Your task to perform on an android device: Search for vegetarian restaurants on Maps Image 0: 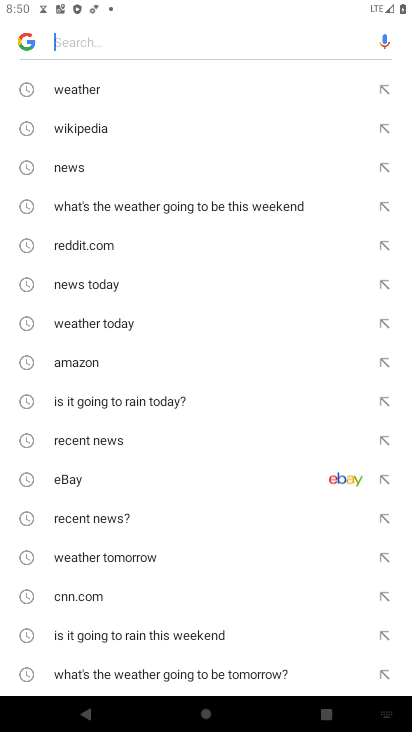
Step 0: press home button
Your task to perform on an android device: Search for vegetarian restaurants on Maps Image 1: 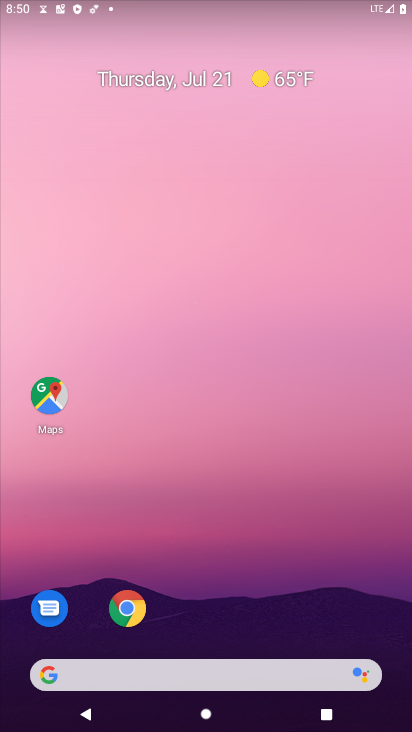
Step 1: click (46, 399)
Your task to perform on an android device: Search for vegetarian restaurants on Maps Image 2: 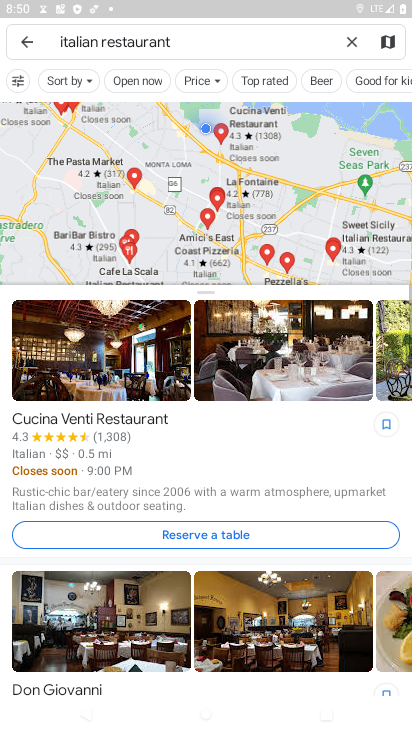
Step 2: click (350, 40)
Your task to perform on an android device: Search for vegetarian restaurants on Maps Image 3: 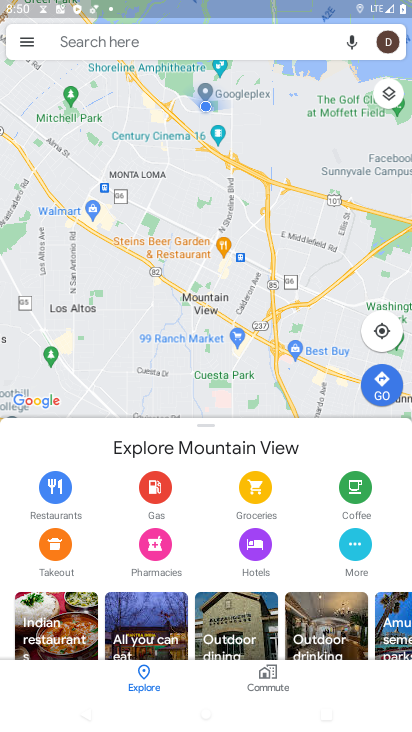
Step 3: click (216, 49)
Your task to perform on an android device: Search for vegetarian restaurants on Maps Image 4: 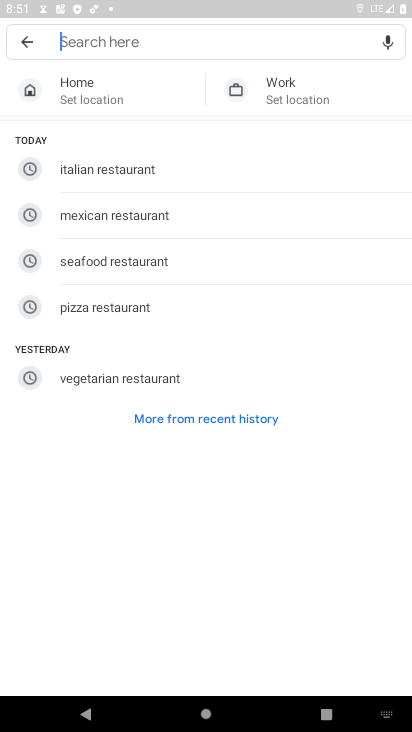
Step 4: type "vegetarian restaurants"
Your task to perform on an android device: Search for vegetarian restaurants on Maps Image 5: 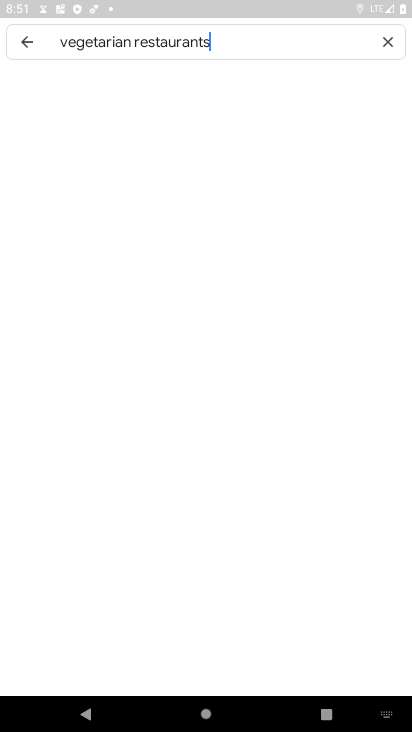
Step 5: type ""
Your task to perform on an android device: Search for vegetarian restaurants on Maps Image 6: 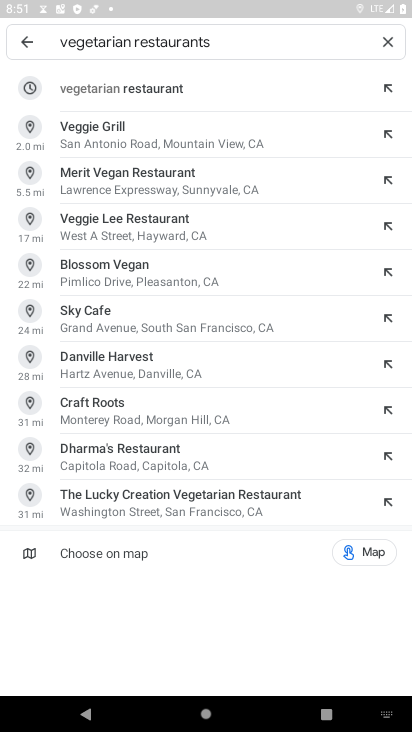
Step 6: click (127, 93)
Your task to perform on an android device: Search for vegetarian restaurants on Maps Image 7: 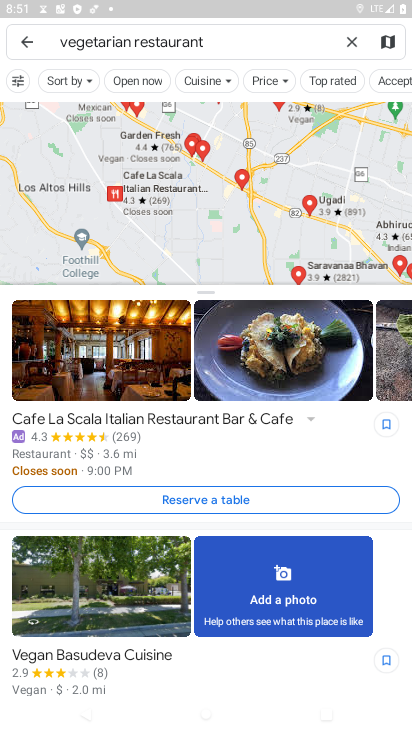
Step 7: task complete